Your task to perform on an android device: Open Google Image 0: 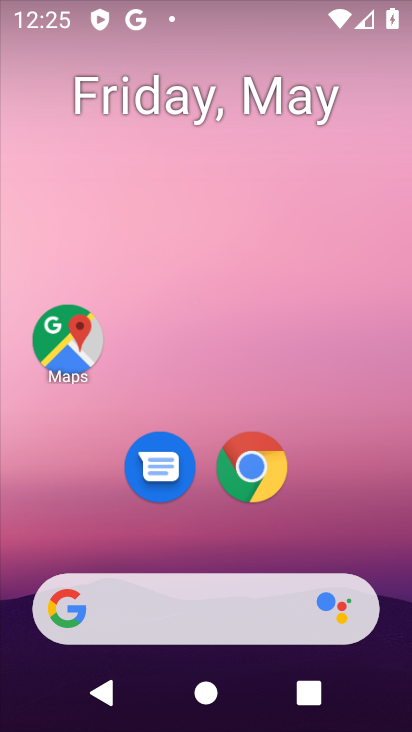
Step 0: drag from (309, 530) to (250, 54)
Your task to perform on an android device: Open Google Image 1: 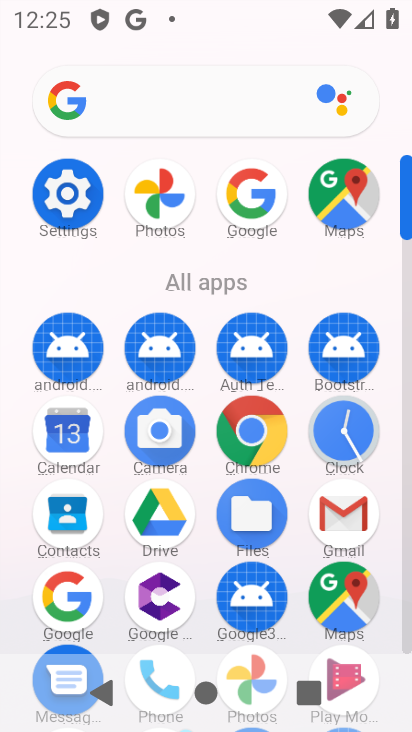
Step 1: click (245, 193)
Your task to perform on an android device: Open Google Image 2: 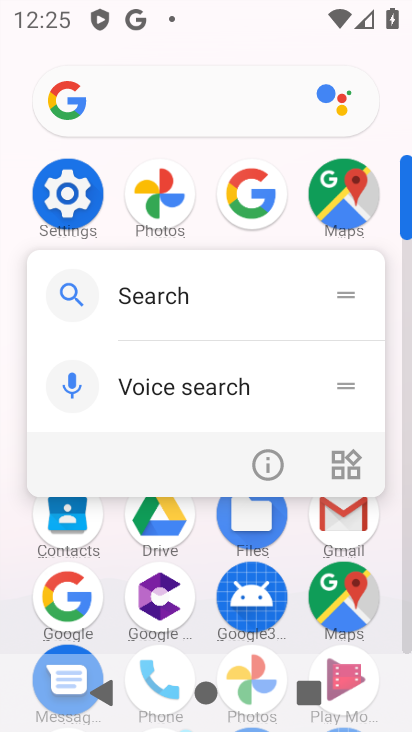
Step 2: click (245, 193)
Your task to perform on an android device: Open Google Image 3: 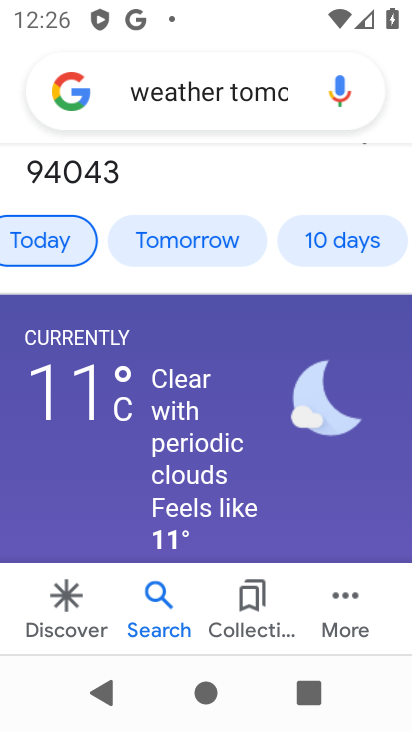
Step 3: task complete